Your task to perform on an android device: Search for apple airpods on bestbuy, select the first entry, add it to the cart, then select checkout. Image 0: 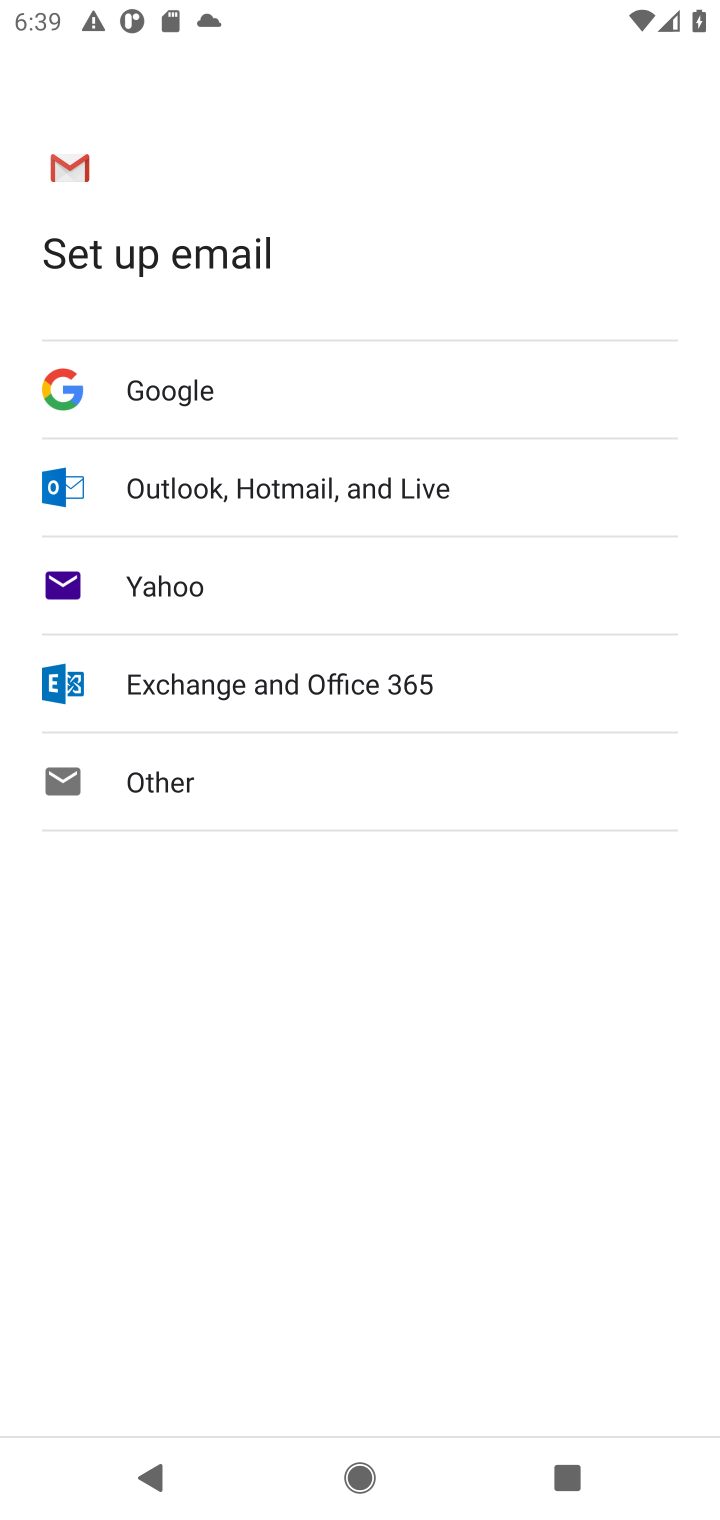
Step 0: press home button
Your task to perform on an android device: Search for apple airpods on bestbuy, select the first entry, add it to the cart, then select checkout. Image 1: 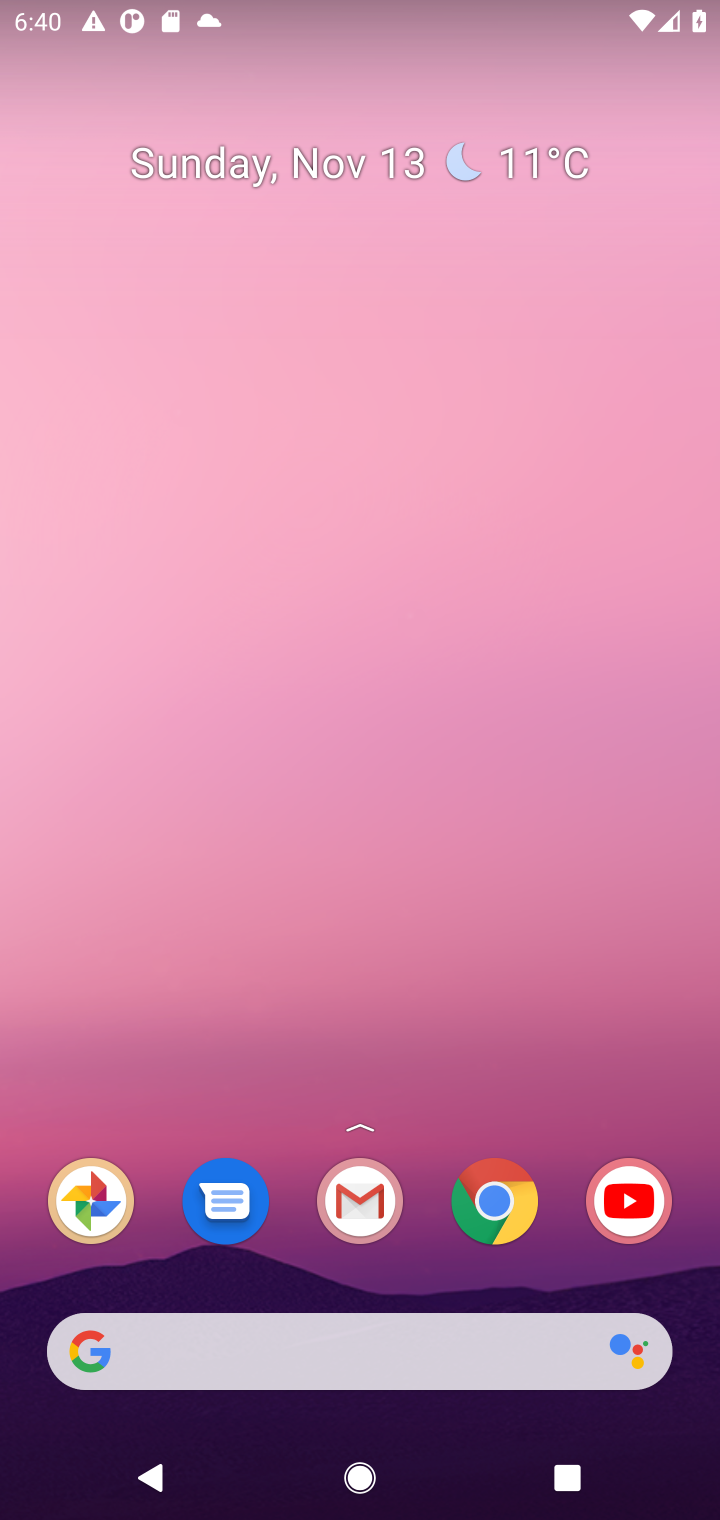
Step 1: drag from (427, 949) to (468, 94)
Your task to perform on an android device: Search for apple airpods on bestbuy, select the first entry, add it to the cart, then select checkout. Image 2: 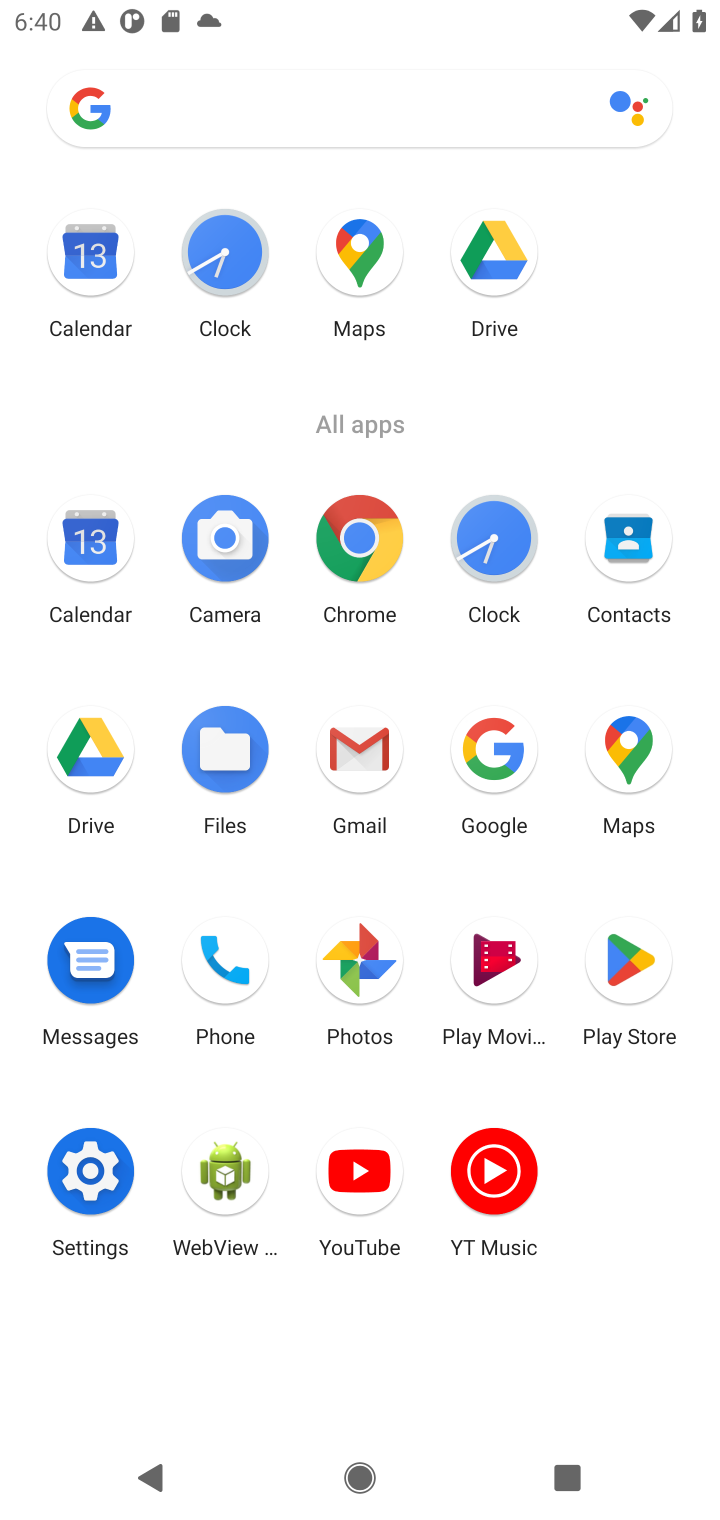
Step 2: click (359, 528)
Your task to perform on an android device: Search for apple airpods on bestbuy, select the first entry, add it to the cart, then select checkout. Image 3: 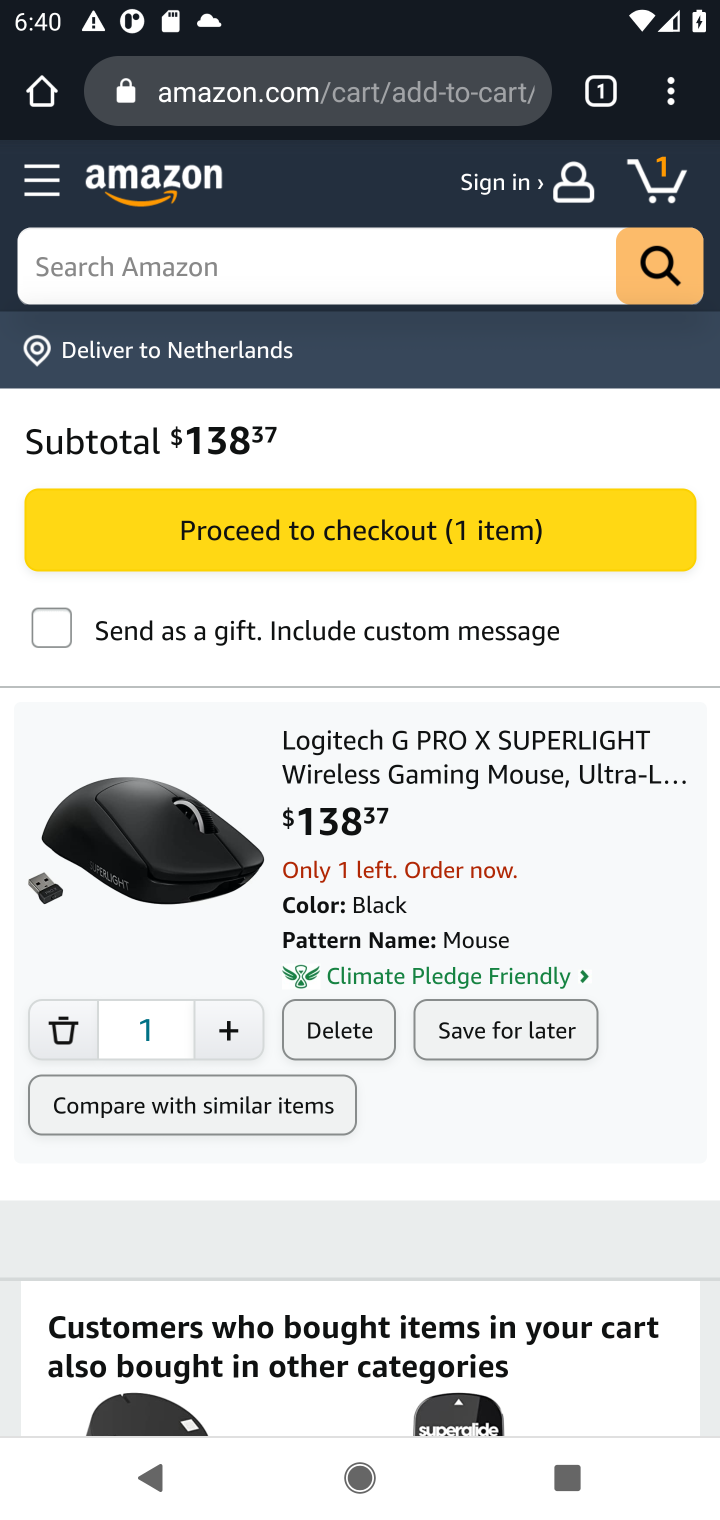
Step 3: click (357, 93)
Your task to perform on an android device: Search for apple airpods on bestbuy, select the first entry, add it to the cart, then select checkout. Image 4: 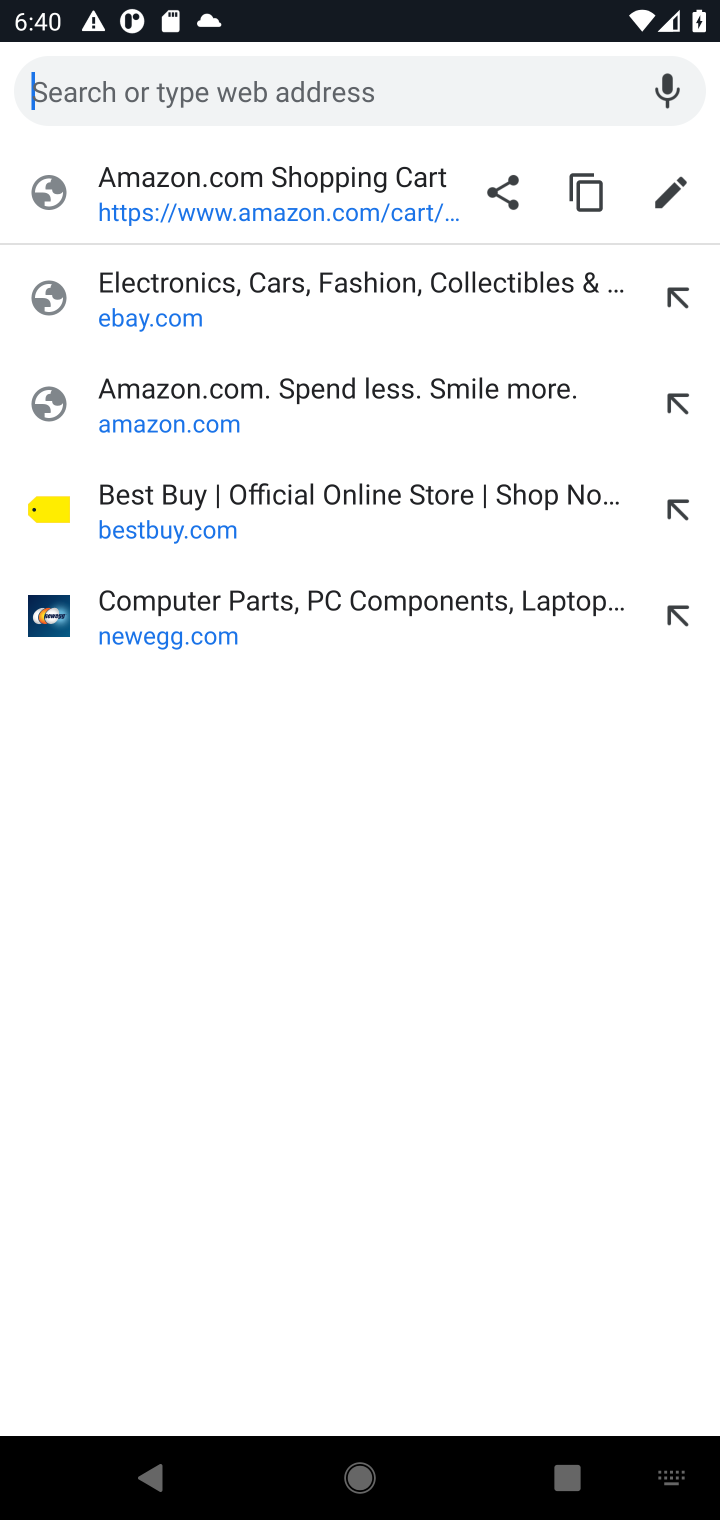
Step 4: type "bestbuy.com"
Your task to perform on an android device: Search for apple airpods on bestbuy, select the first entry, add it to the cart, then select checkout. Image 5: 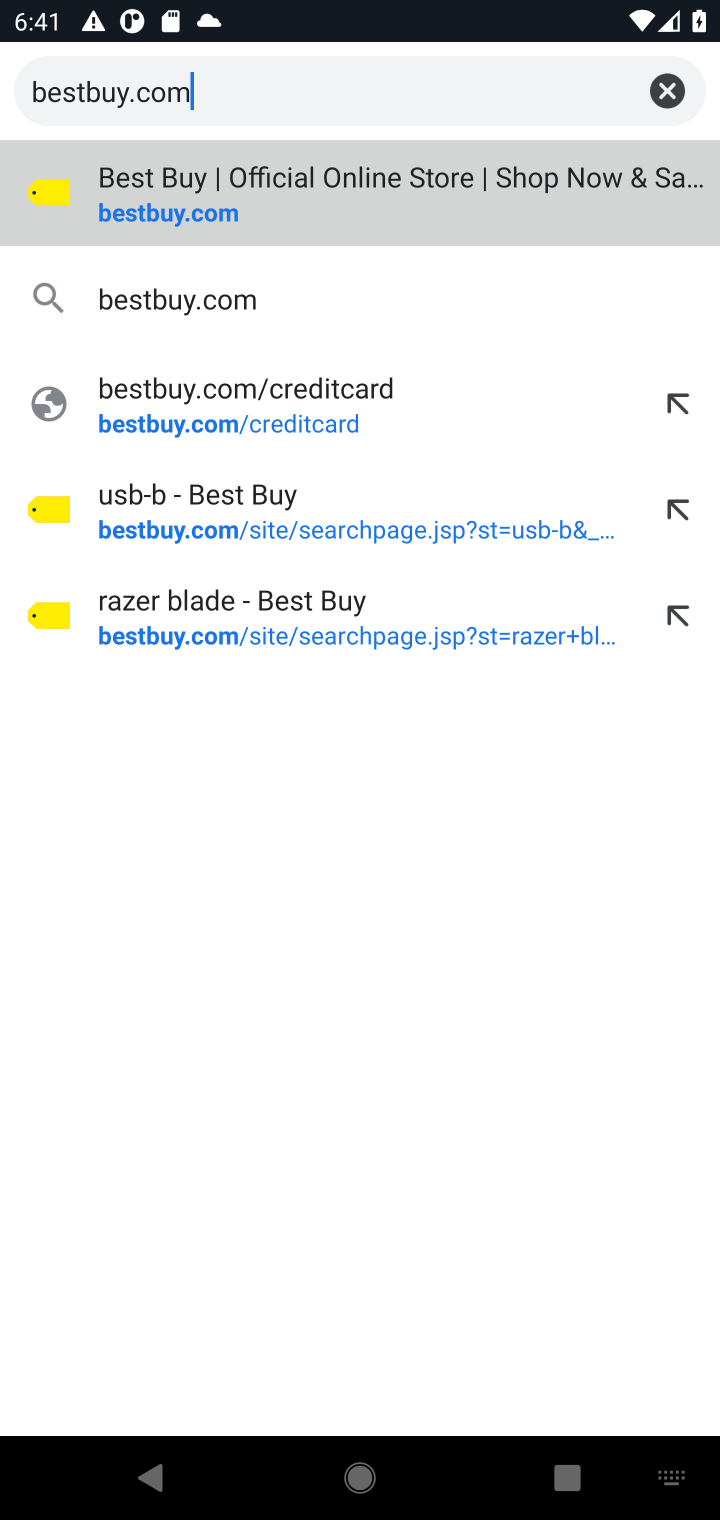
Step 5: press enter
Your task to perform on an android device: Search for apple airpods on bestbuy, select the first entry, add it to the cart, then select checkout. Image 6: 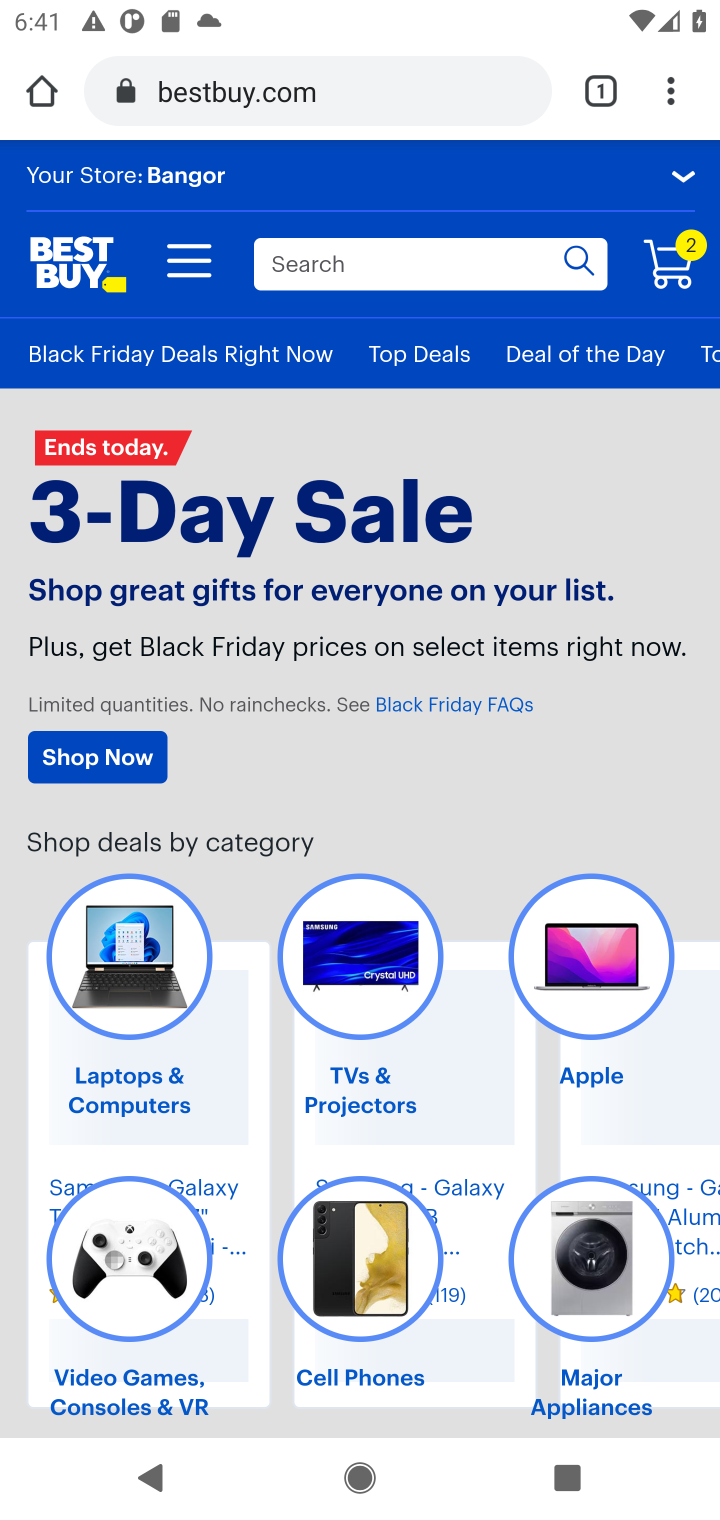
Step 6: click (535, 270)
Your task to perform on an android device: Search for apple airpods on bestbuy, select the first entry, add it to the cart, then select checkout. Image 7: 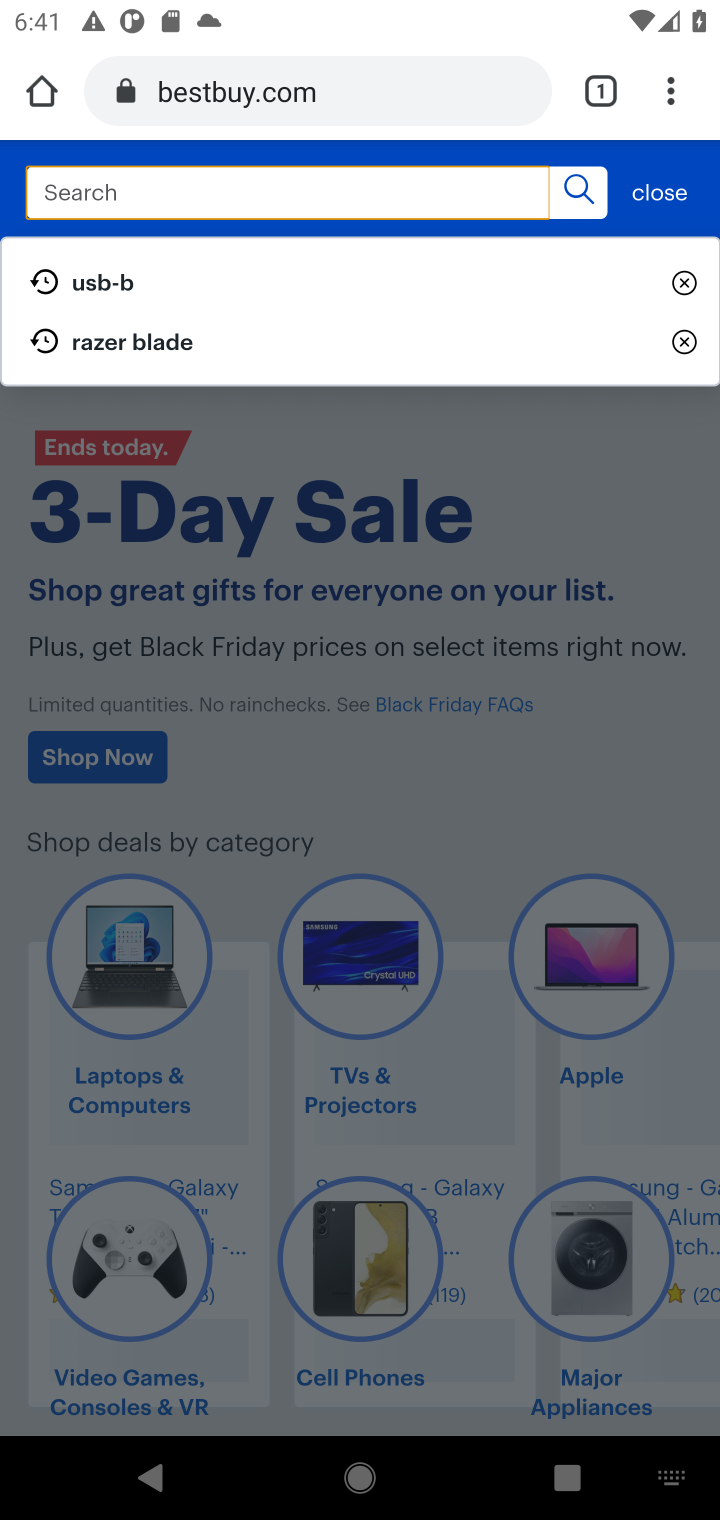
Step 7: type "apple airpods"
Your task to perform on an android device: Search for apple airpods on bestbuy, select the first entry, add it to the cart, then select checkout. Image 8: 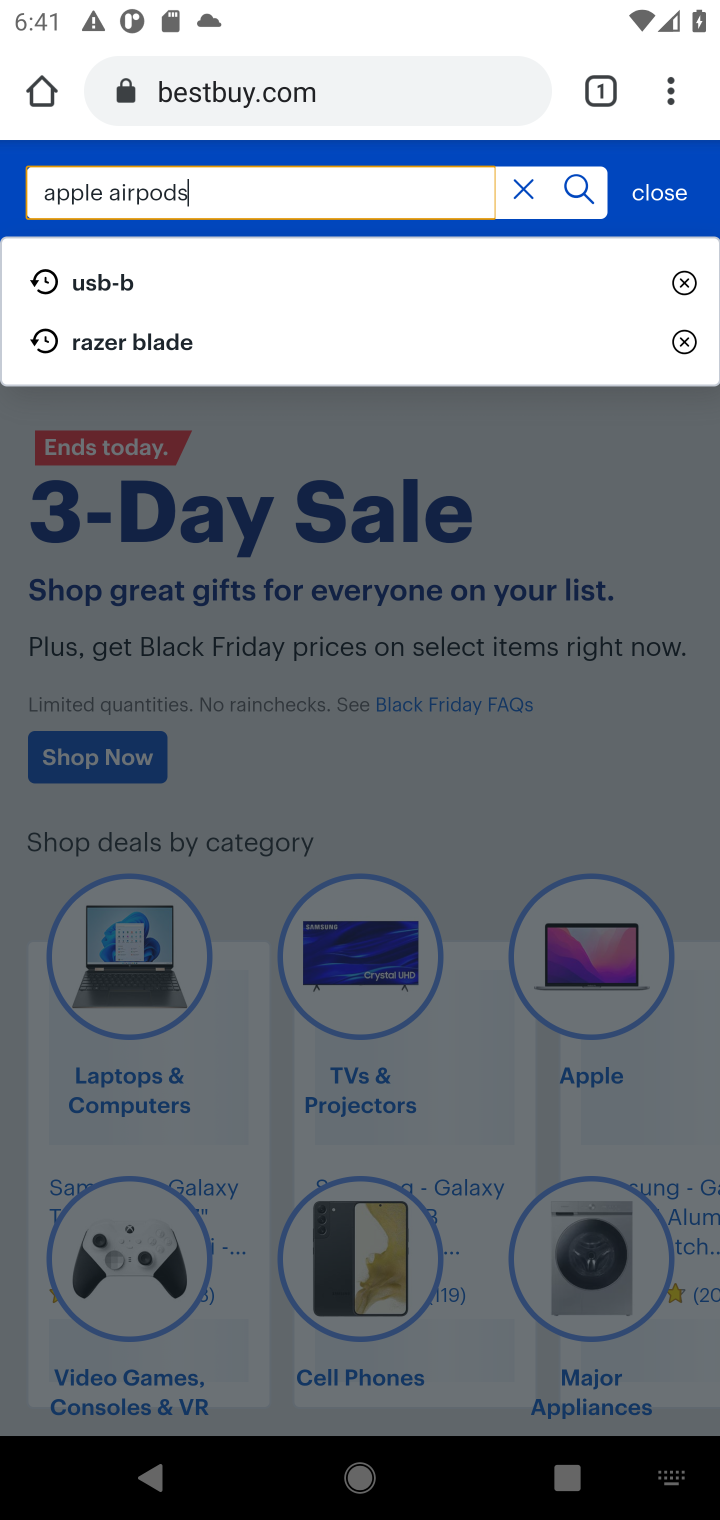
Step 8: press enter
Your task to perform on an android device: Search for apple airpods on bestbuy, select the first entry, add it to the cart, then select checkout. Image 9: 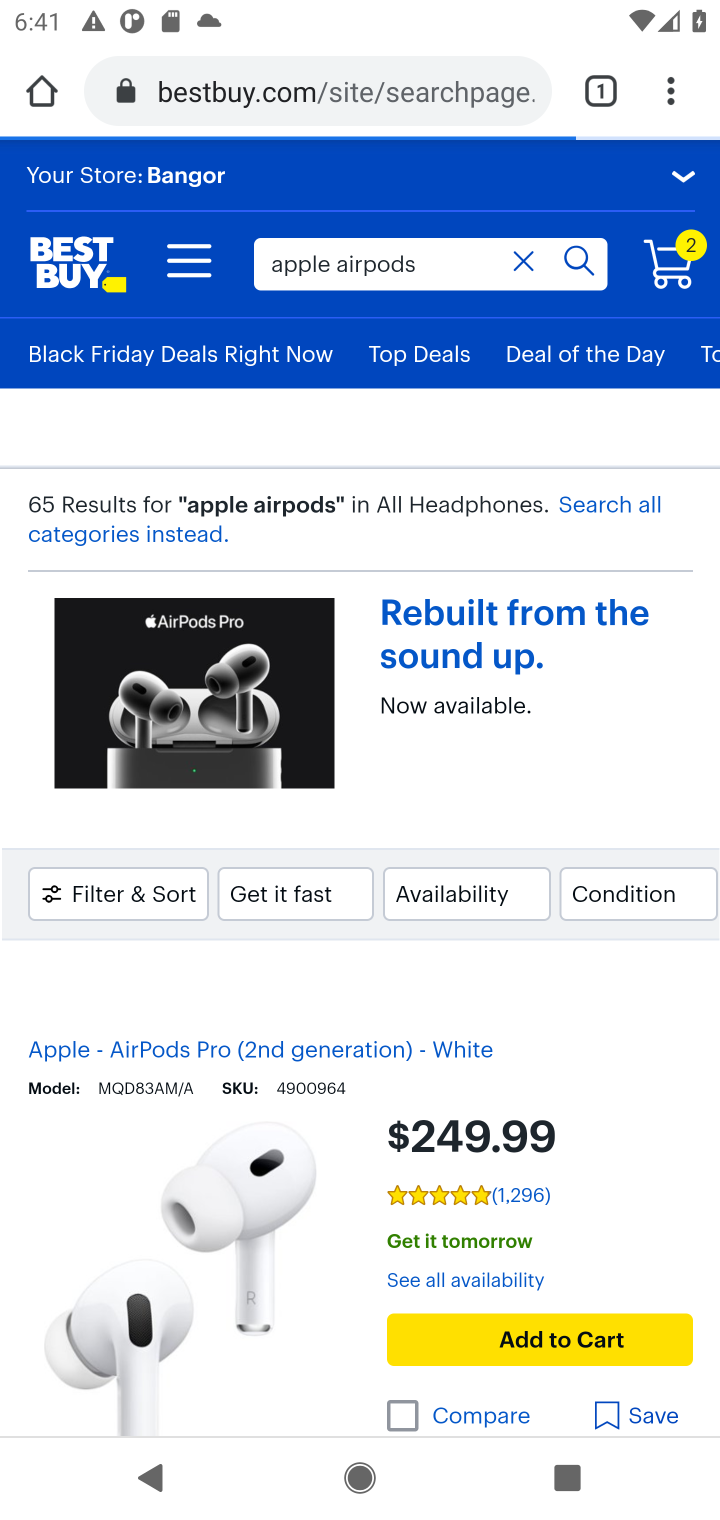
Step 9: drag from (437, 1110) to (416, 386)
Your task to perform on an android device: Search for apple airpods on bestbuy, select the first entry, add it to the cart, then select checkout. Image 10: 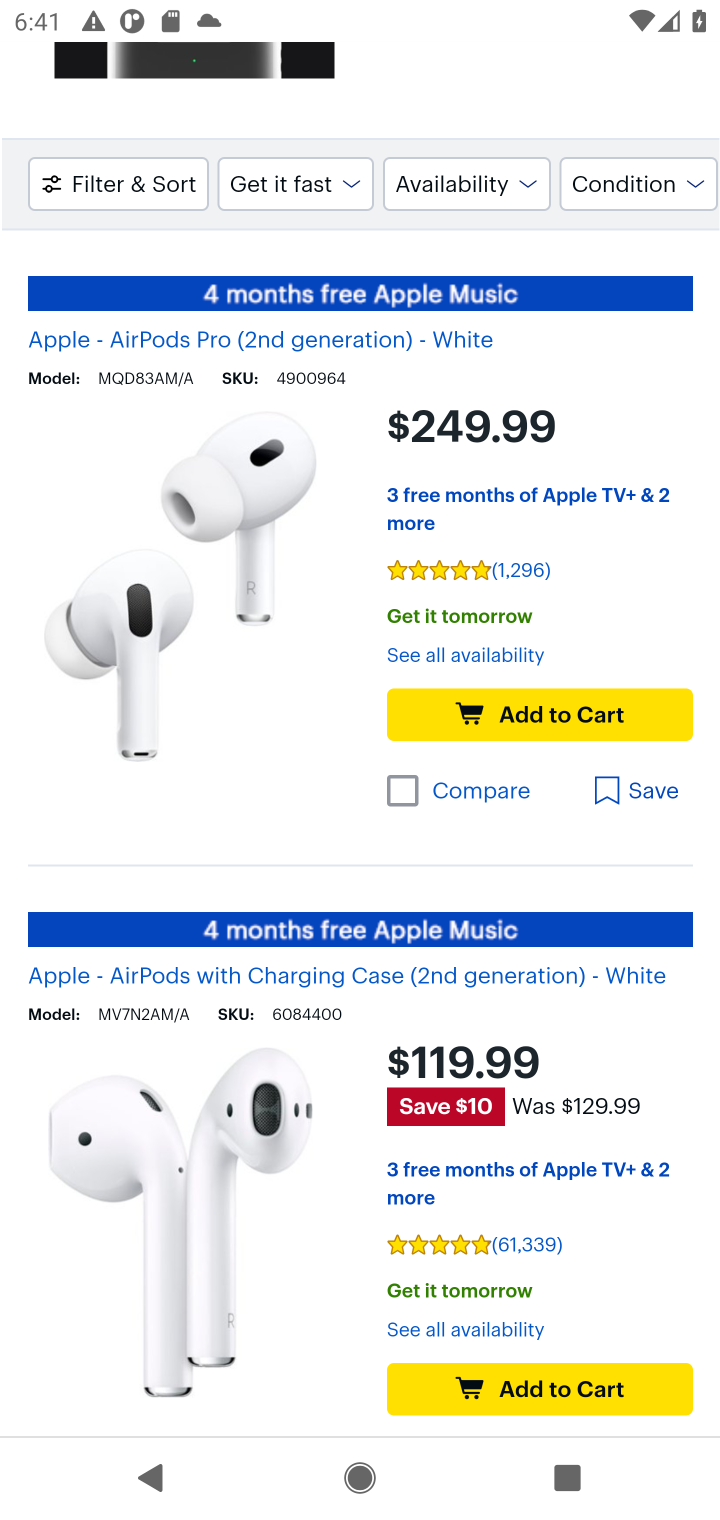
Step 10: click (594, 714)
Your task to perform on an android device: Search for apple airpods on bestbuy, select the first entry, add it to the cart, then select checkout. Image 11: 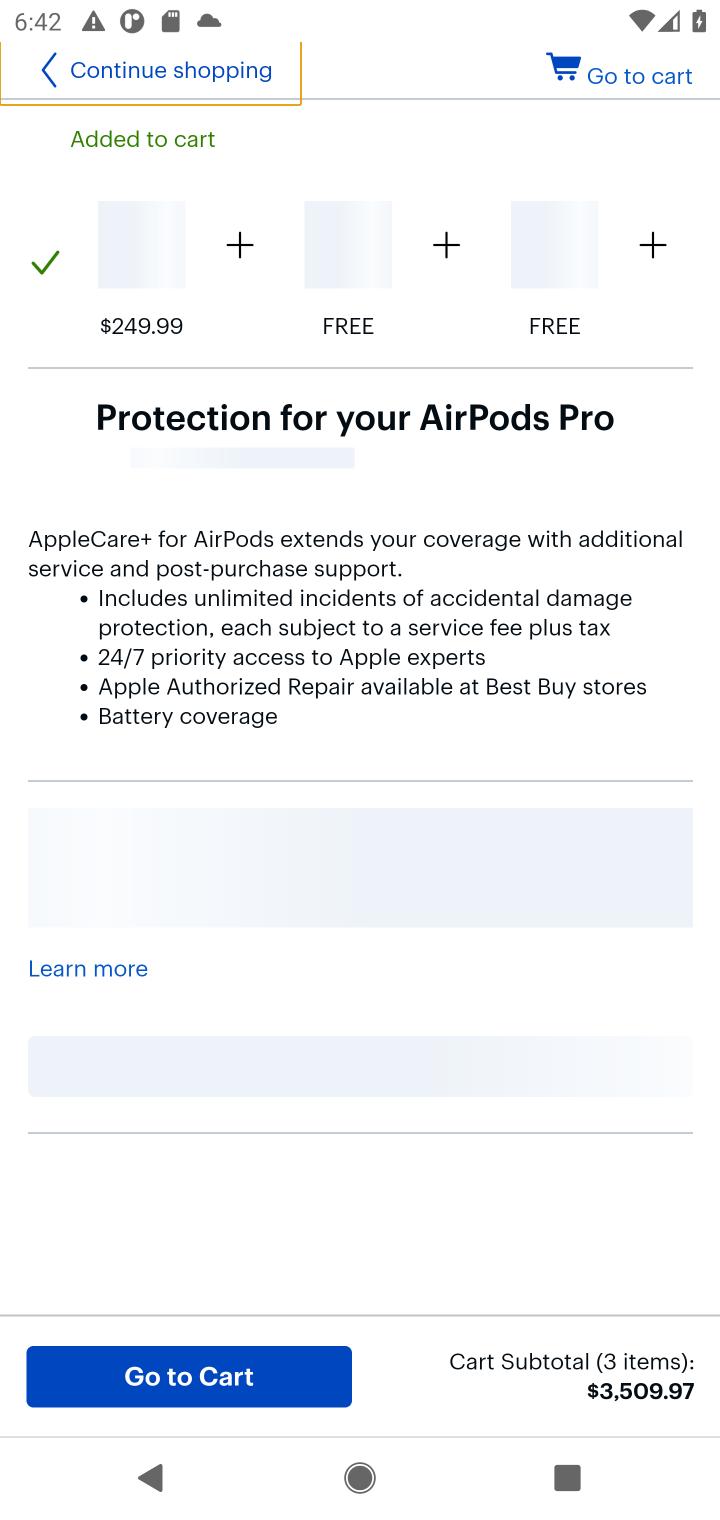
Step 11: click (247, 1374)
Your task to perform on an android device: Search for apple airpods on bestbuy, select the first entry, add it to the cart, then select checkout. Image 12: 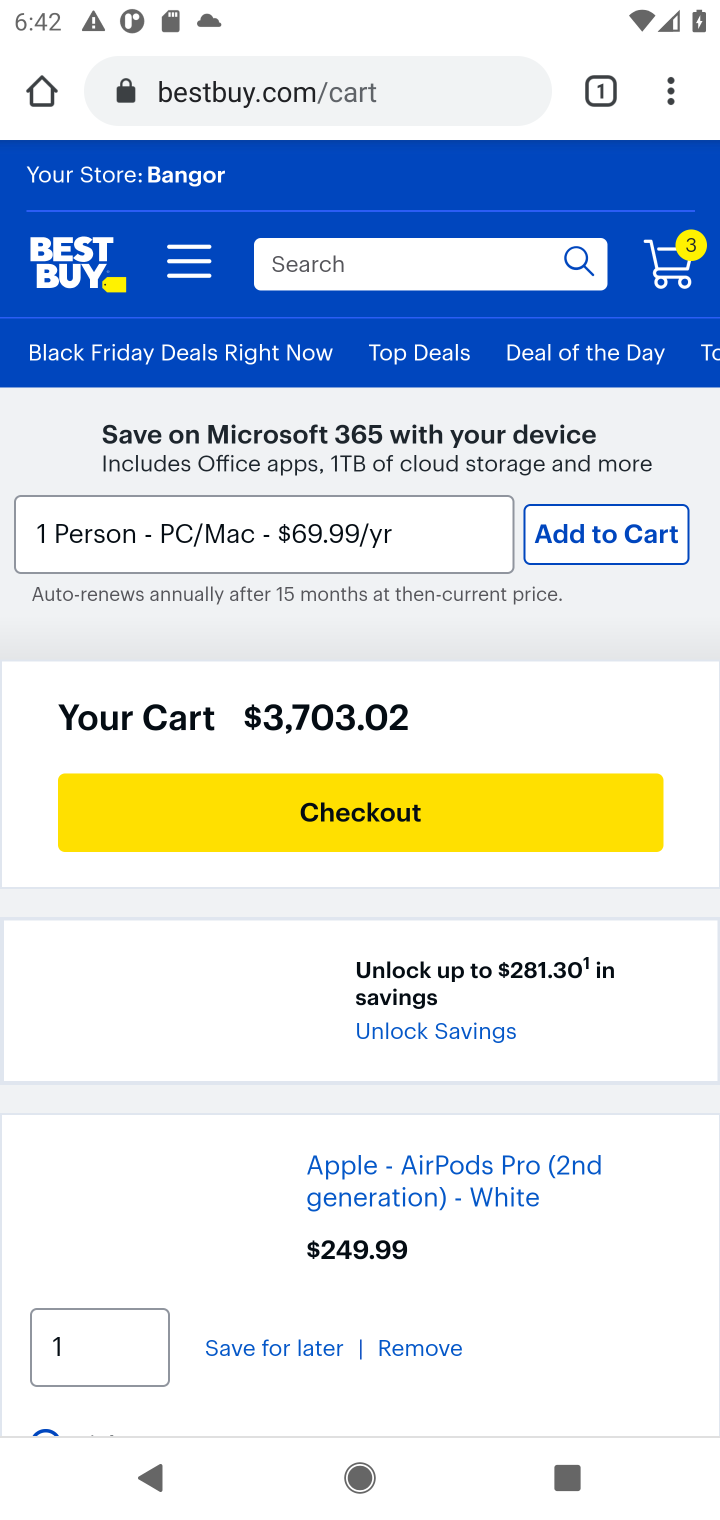
Step 12: click (432, 827)
Your task to perform on an android device: Search for apple airpods on bestbuy, select the first entry, add it to the cart, then select checkout. Image 13: 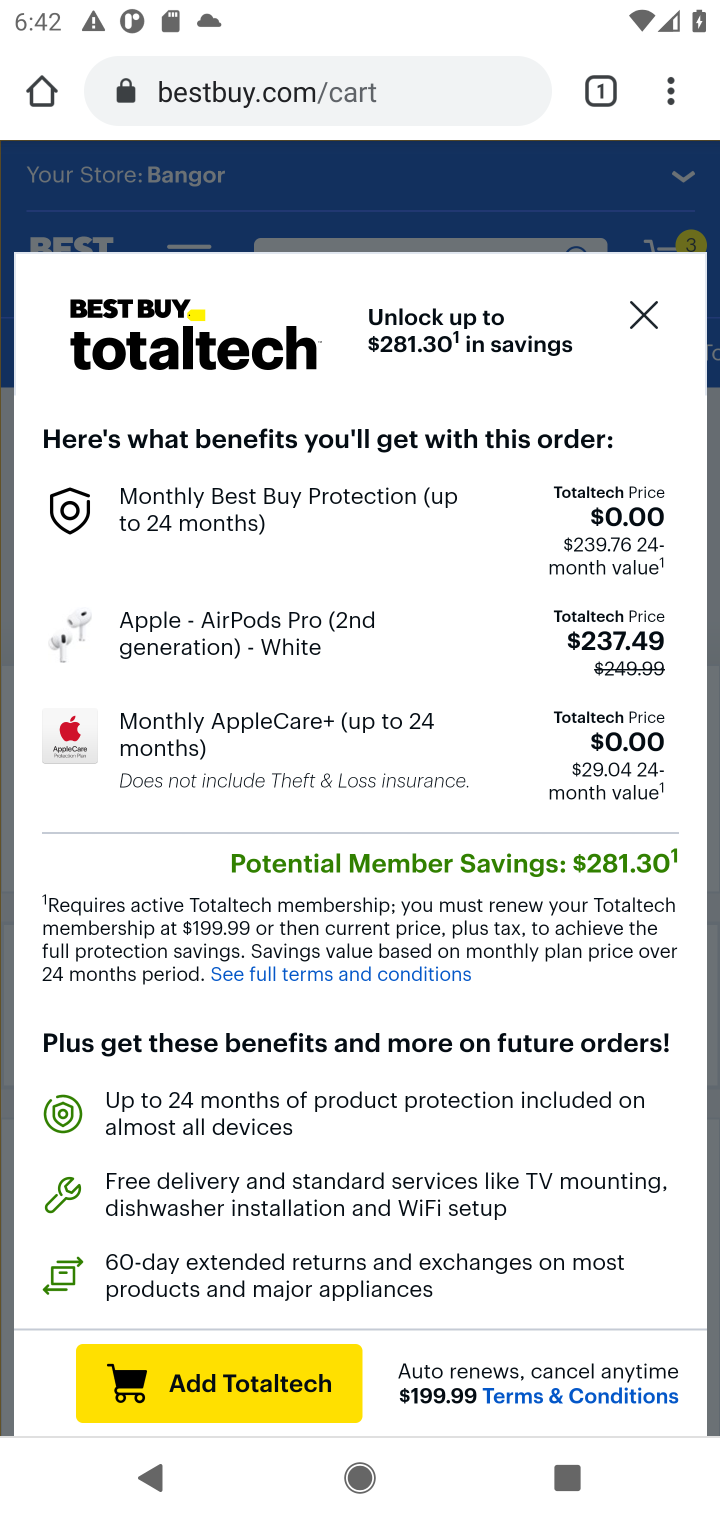
Step 13: task complete